Your task to perform on an android device: Search for vegetarian restaurants on Maps Image 0: 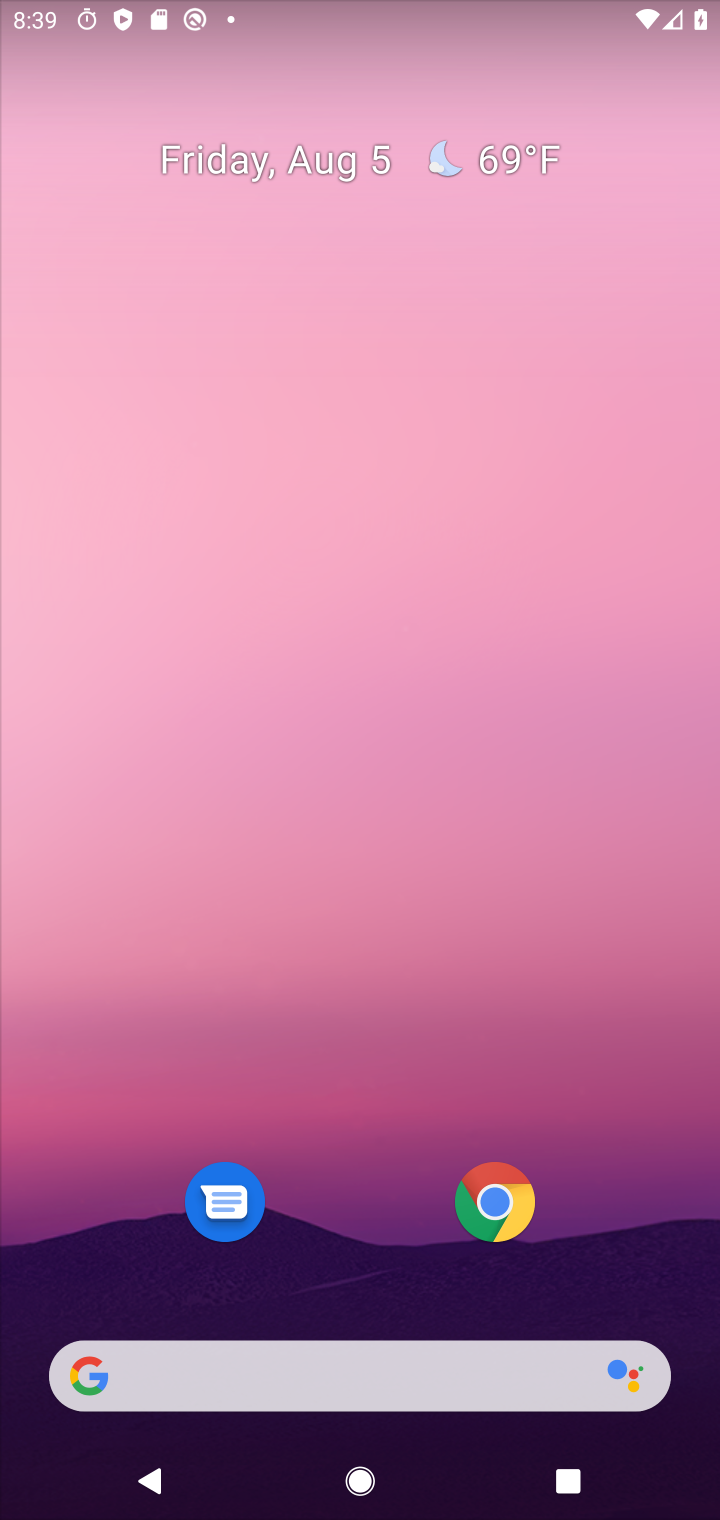
Step 0: drag from (336, 1223) to (387, 336)
Your task to perform on an android device: Search for vegetarian restaurants on Maps Image 1: 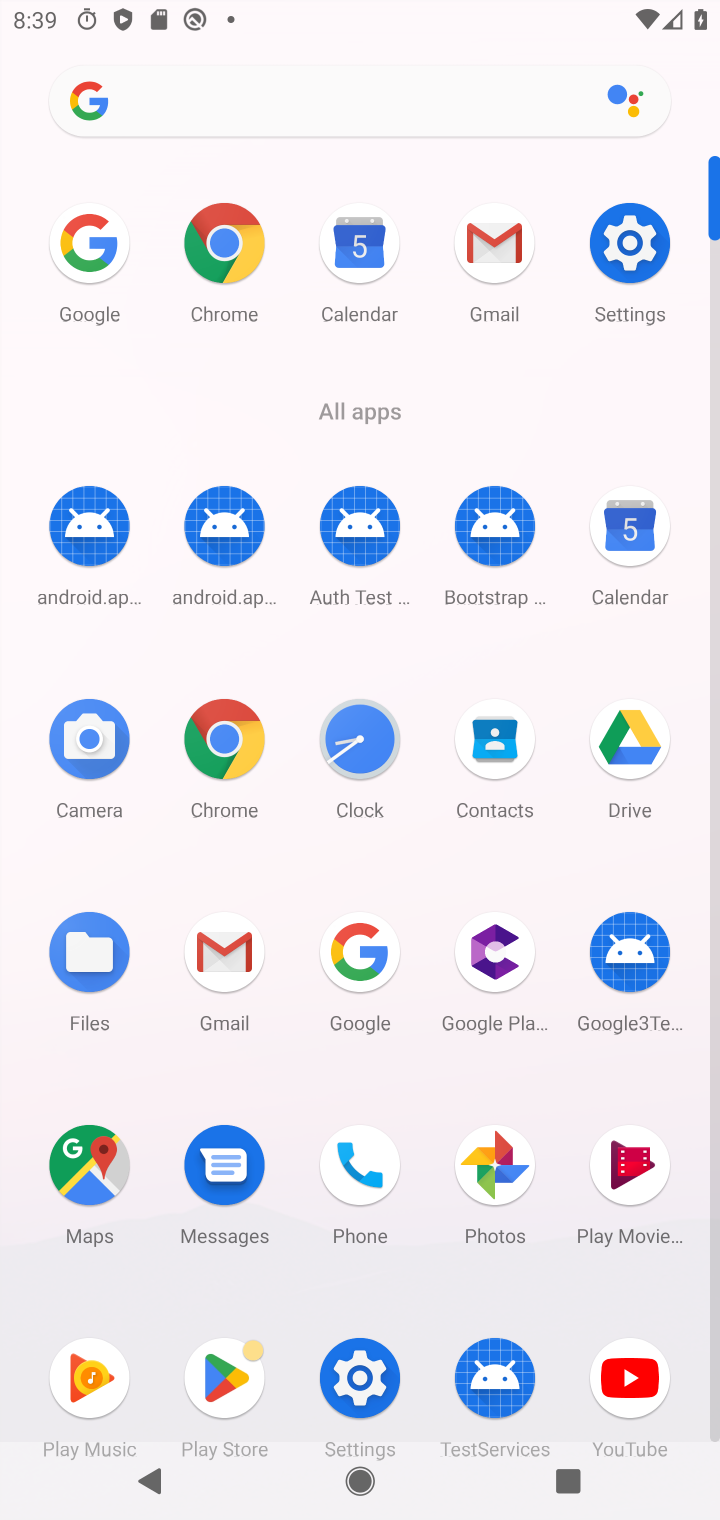
Step 1: click (90, 1160)
Your task to perform on an android device: Search for vegetarian restaurants on Maps Image 2: 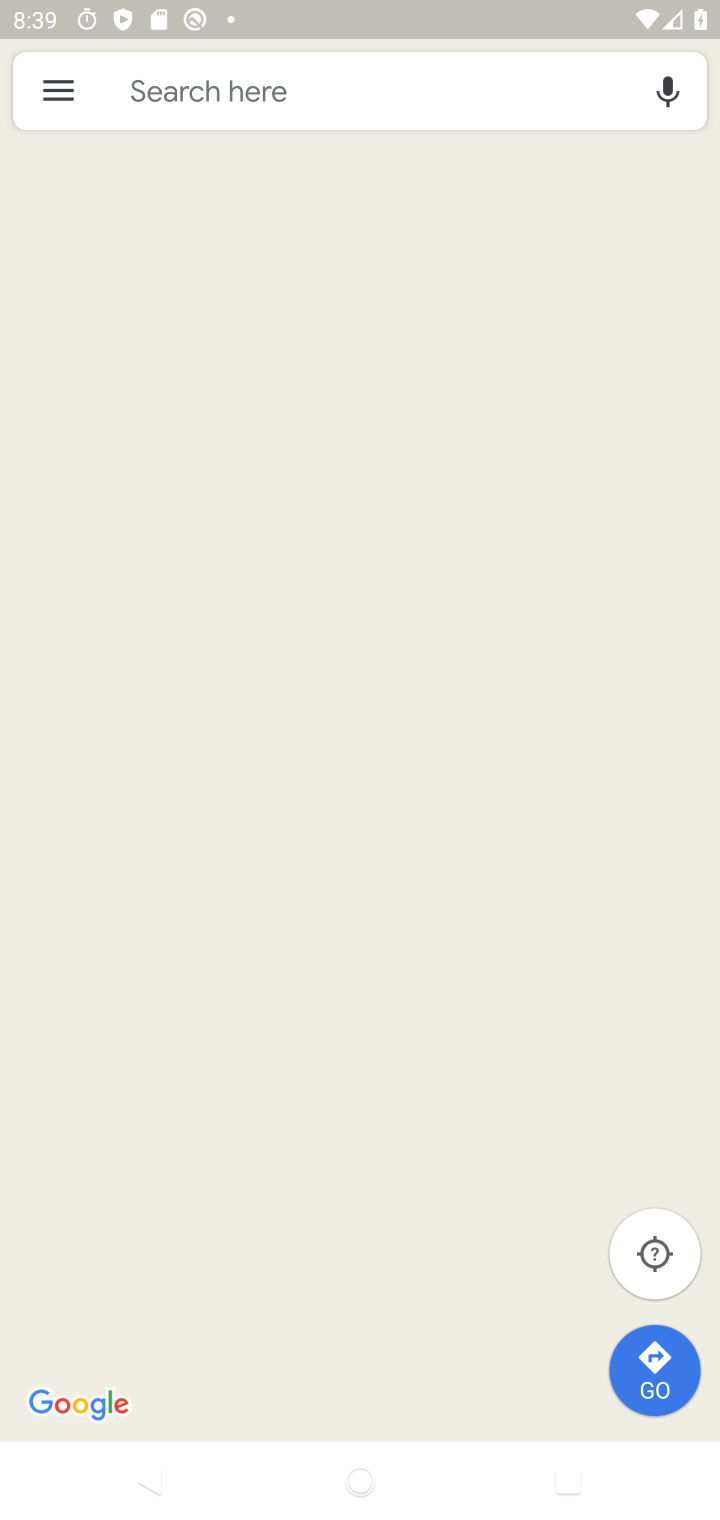
Step 2: click (379, 83)
Your task to perform on an android device: Search for vegetarian restaurants on Maps Image 3: 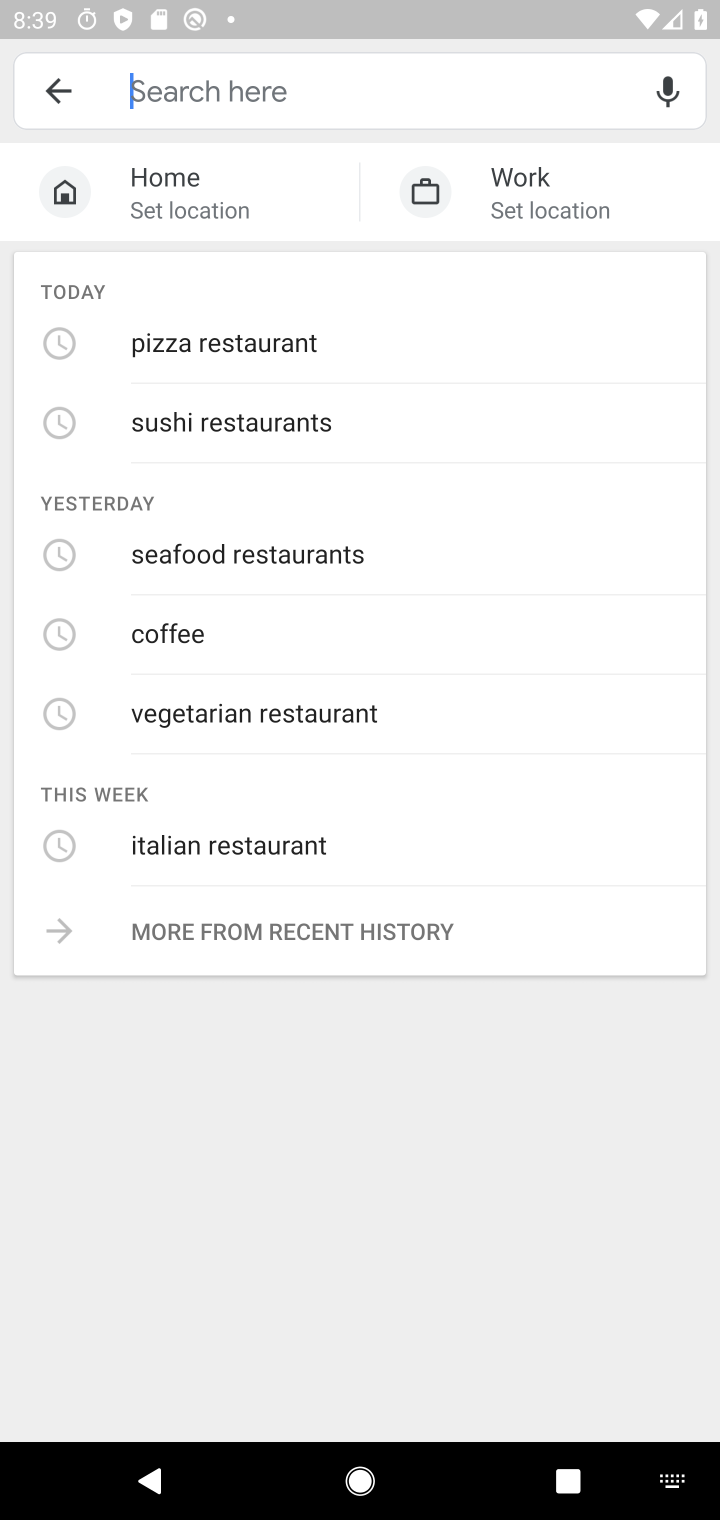
Step 3: type "vegetarian restaurants"
Your task to perform on an android device: Search for vegetarian restaurants on Maps Image 4: 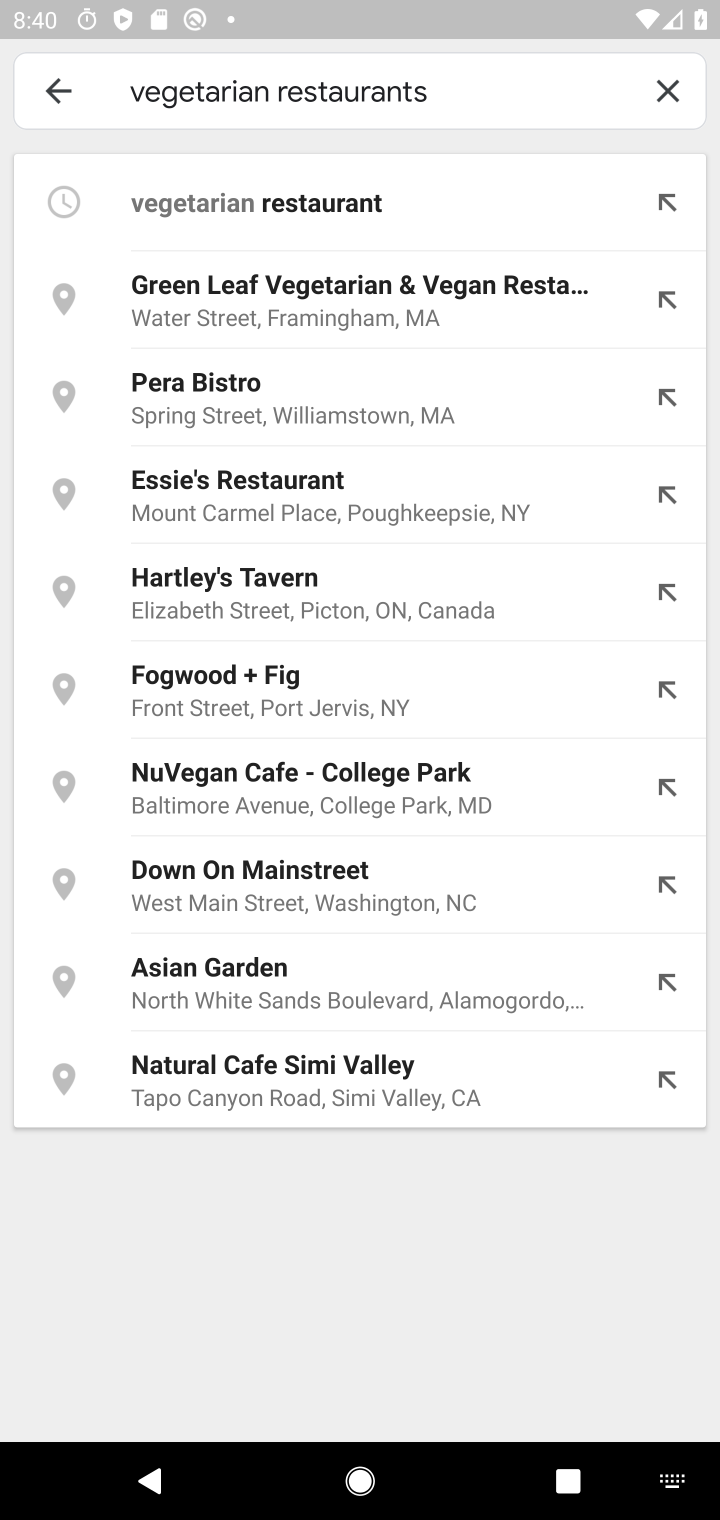
Step 4: click (367, 214)
Your task to perform on an android device: Search for vegetarian restaurants on Maps Image 5: 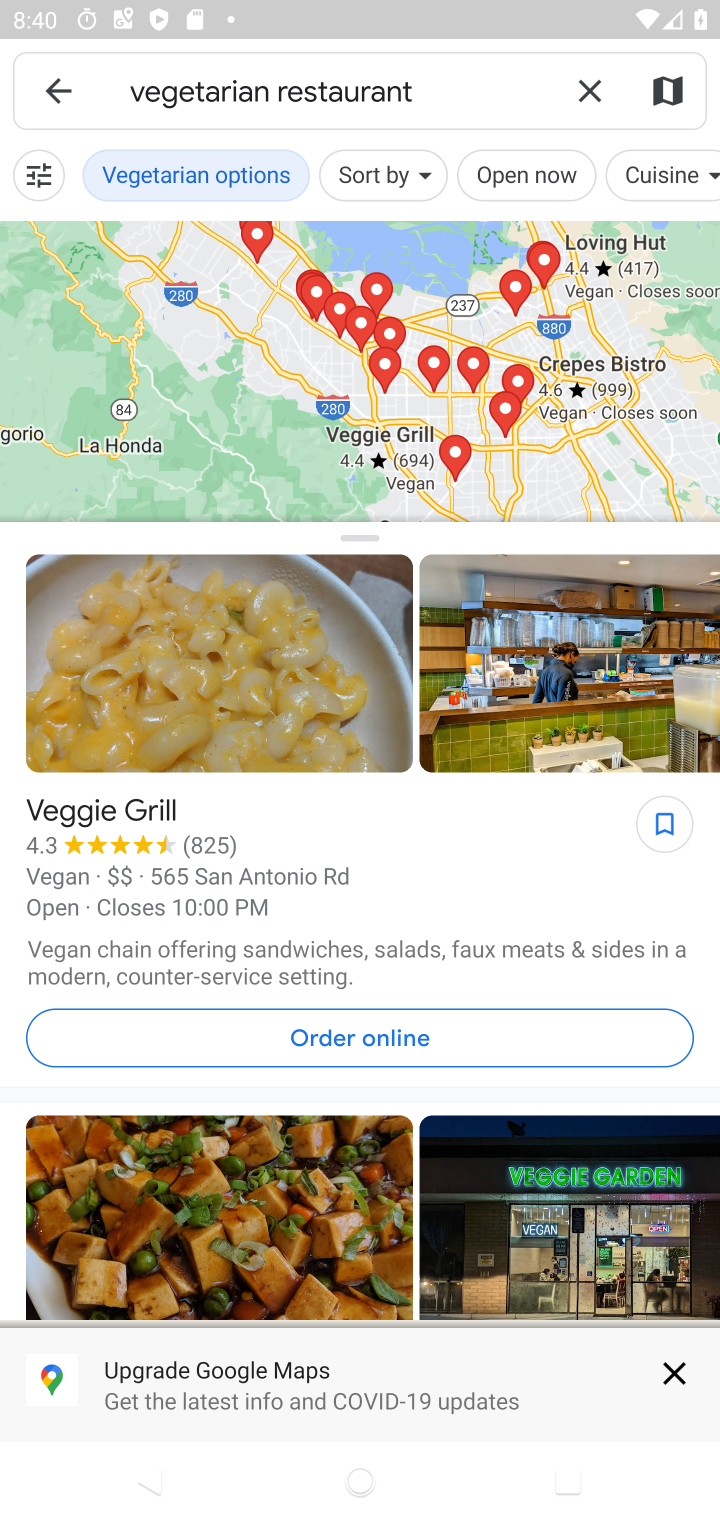
Step 5: task complete